Your task to perform on an android device: search for starred emails in the gmail app Image 0: 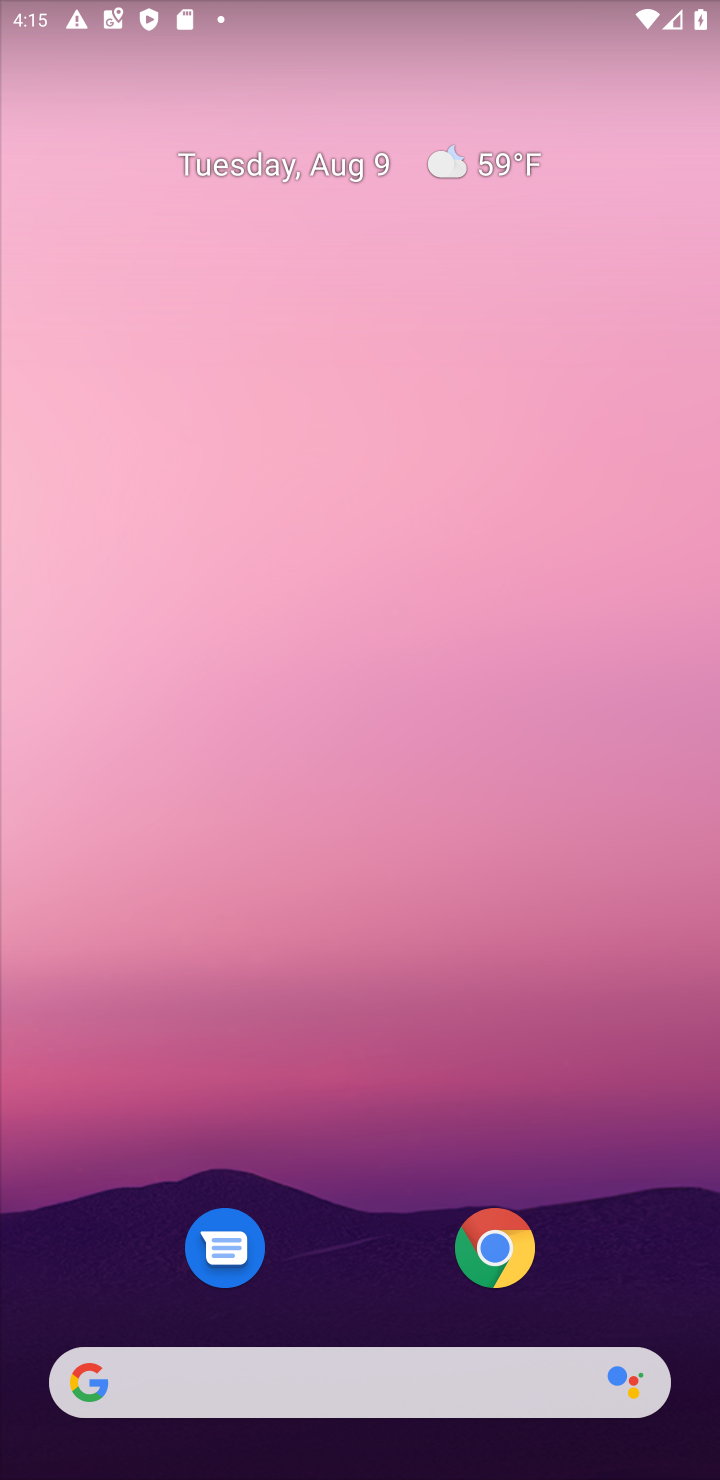
Step 0: drag from (388, 1256) to (101, 353)
Your task to perform on an android device: search for starred emails in the gmail app Image 1: 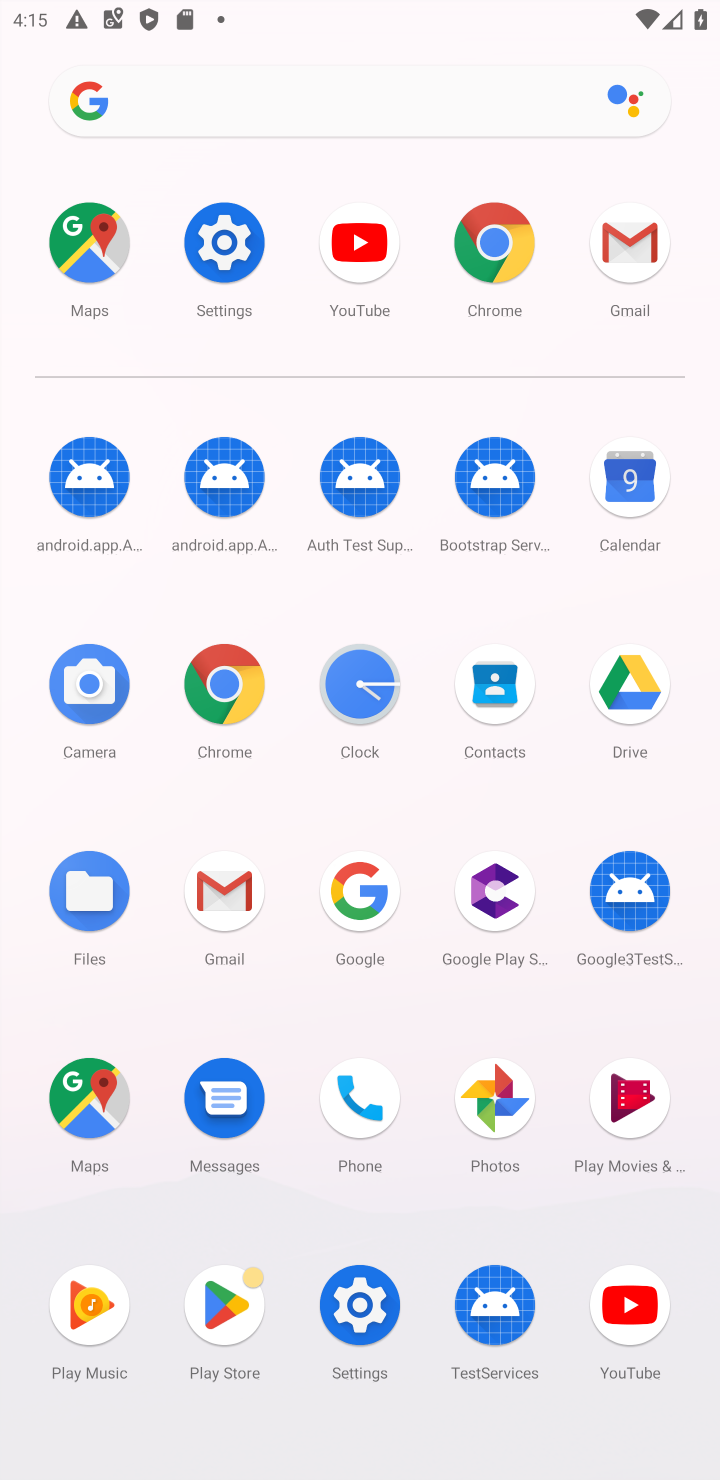
Step 1: click (229, 898)
Your task to perform on an android device: search for starred emails in the gmail app Image 2: 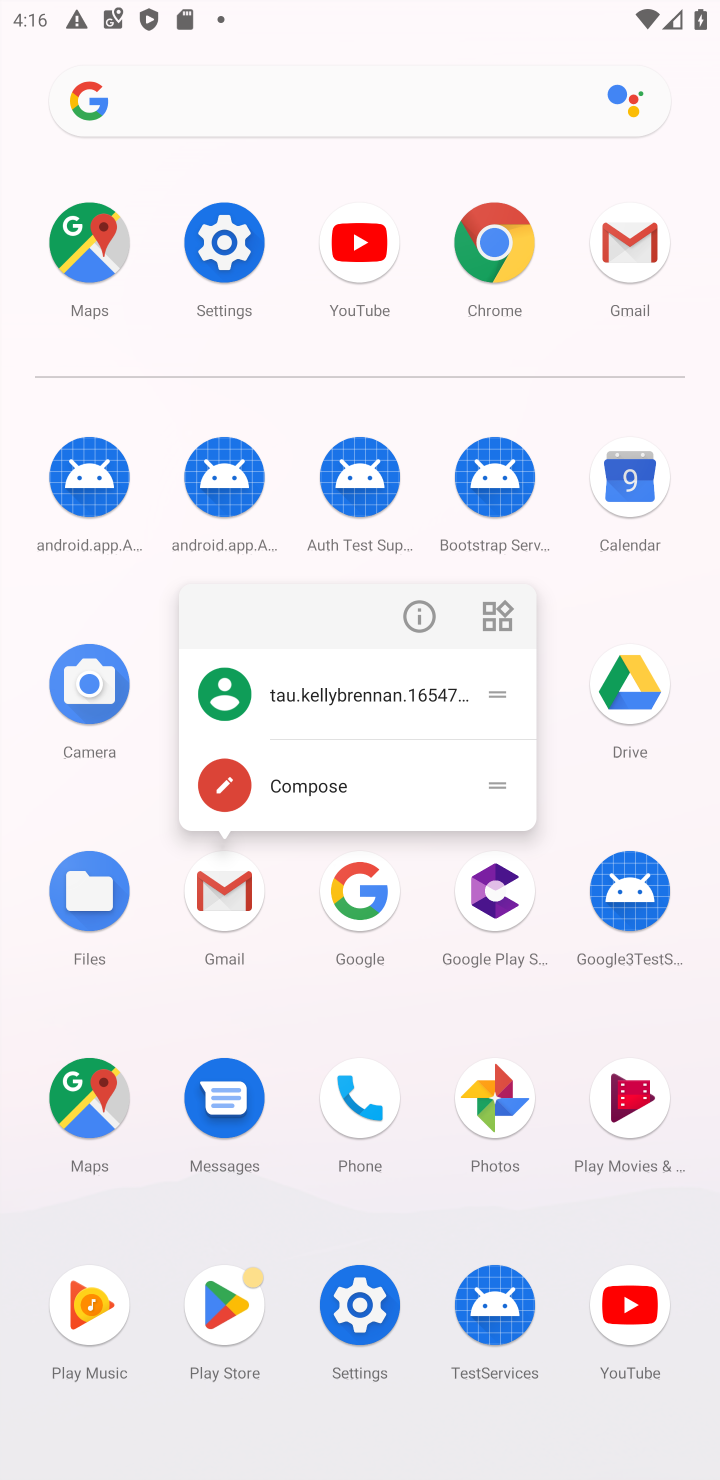
Step 2: click (216, 885)
Your task to perform on an android device: search for starred emails in the gmail app Image 3: 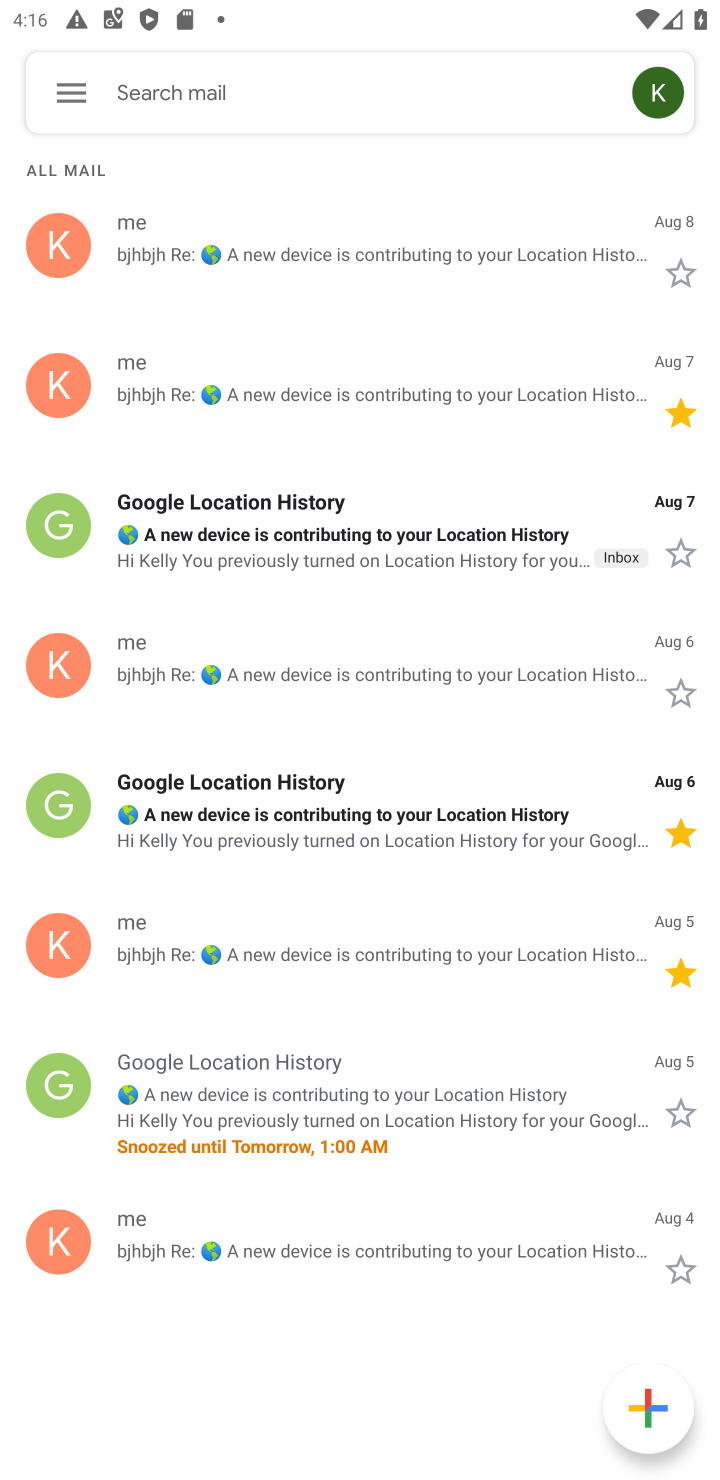
Step 3: click (78, 77)
Your task to perform on an android device: search for starred emails in the gmail app Image 4: 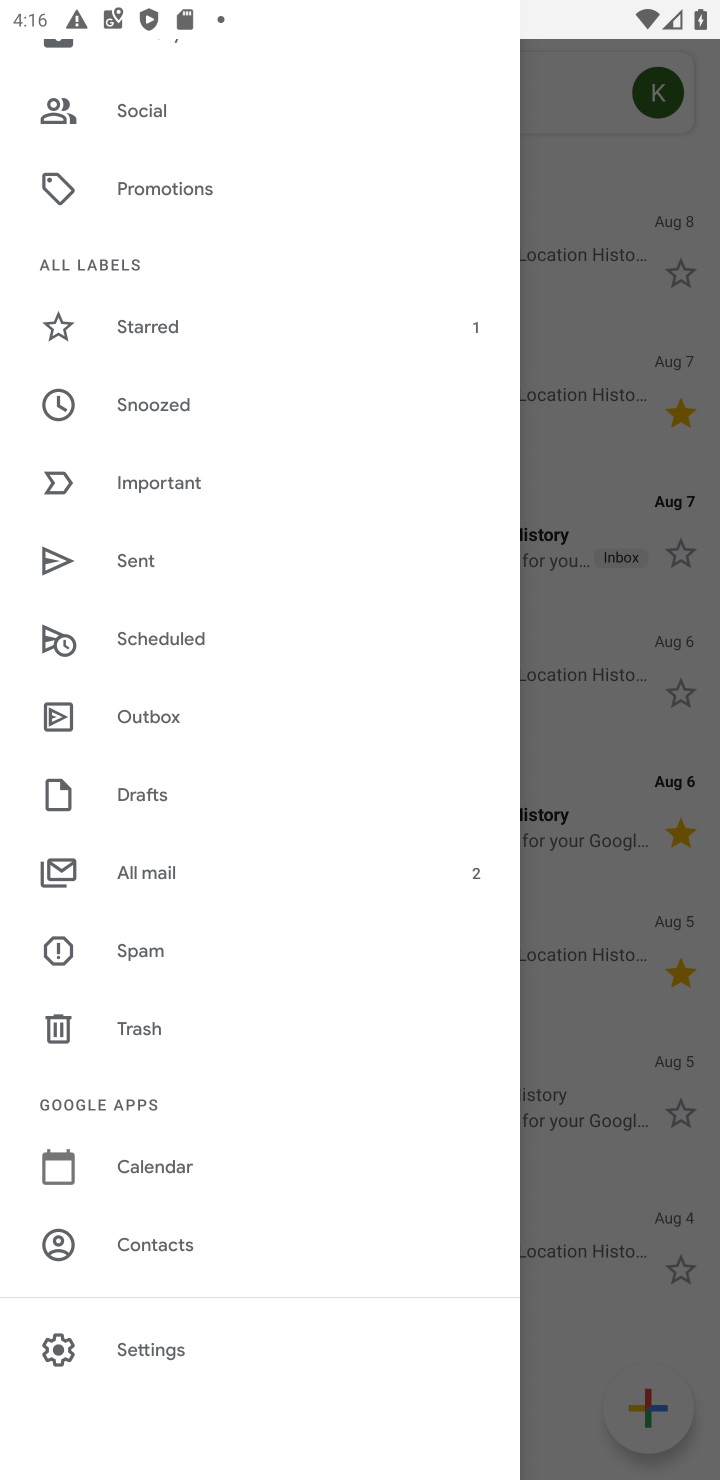
Step 4: click (140, 342)
Your task to perform on an android device: search for starred emails in the gmail app Image 5: 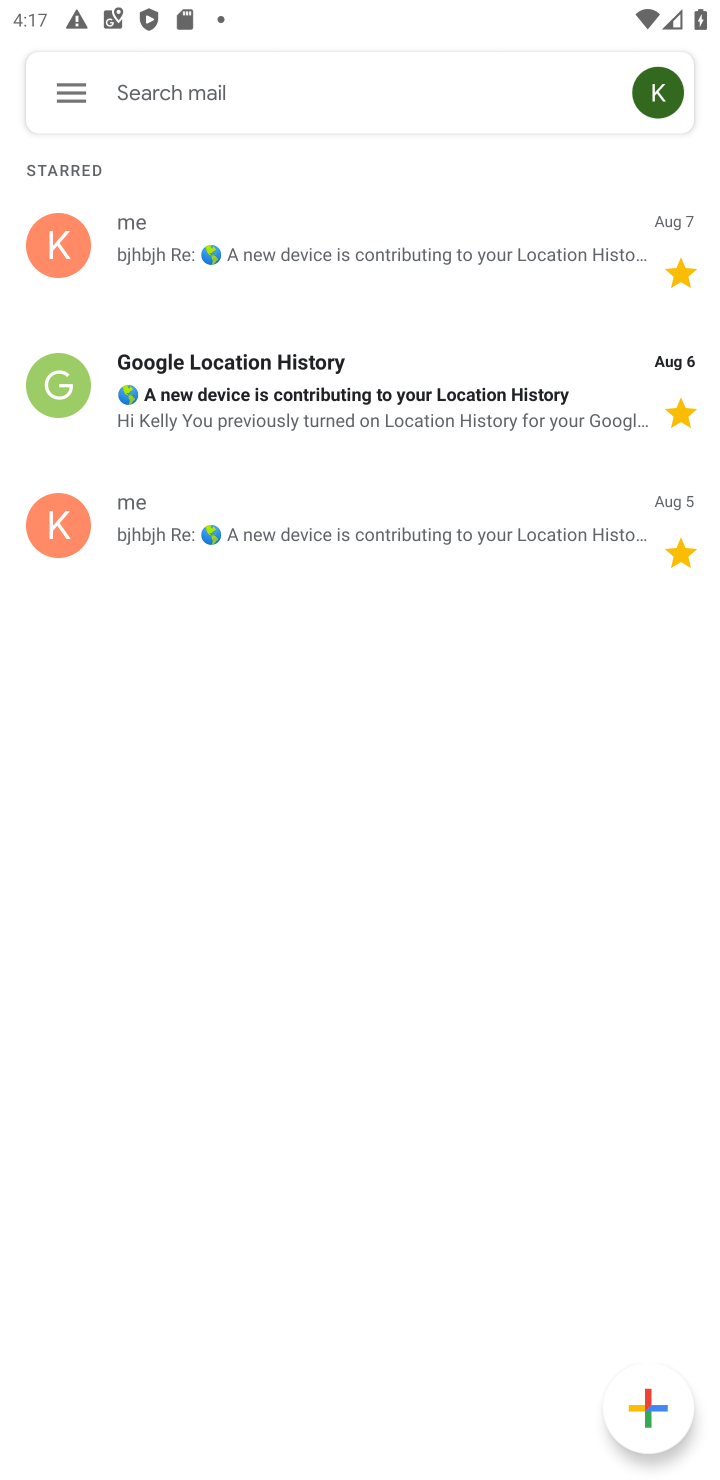
Step 5: task complete